Your task to perform on an android device: How much does the Samsung TV cost? Image 0: 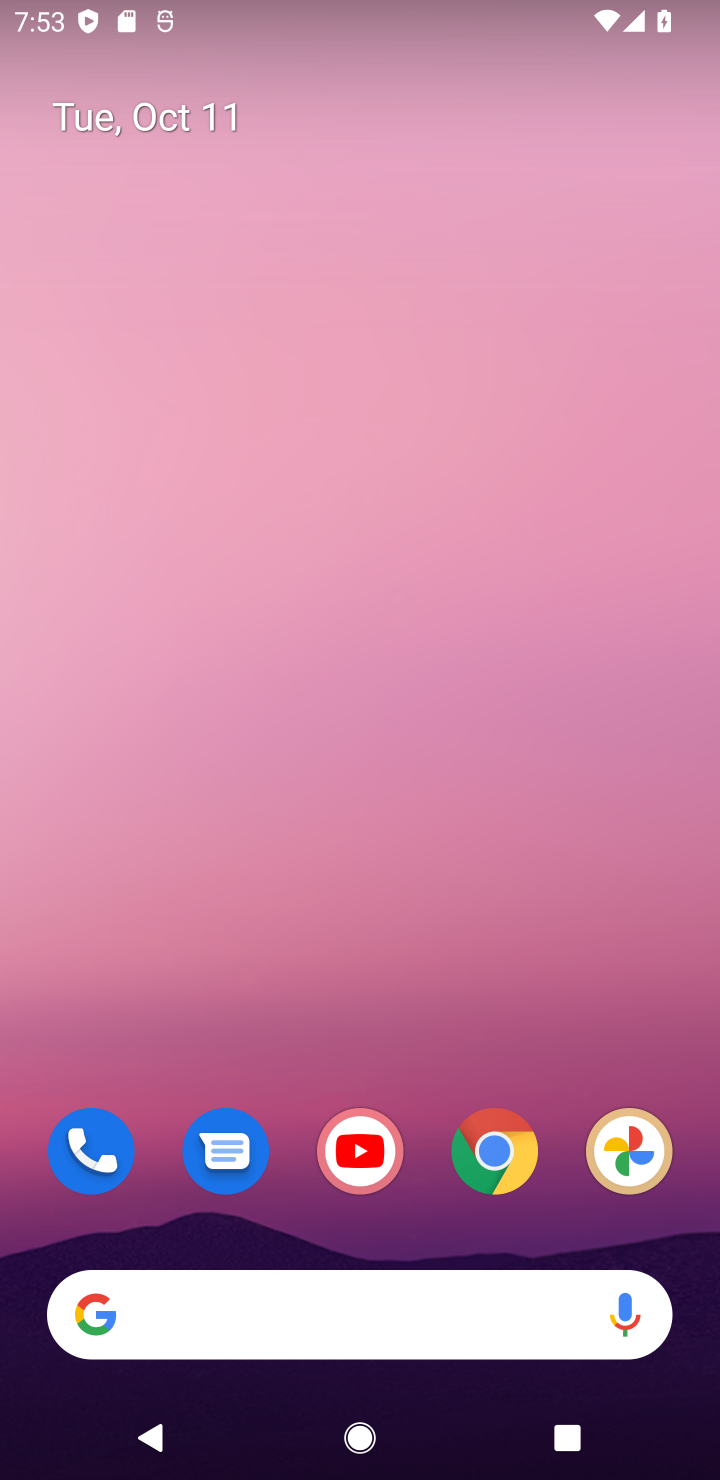
Step 0: click (231, 1329)
Your task to perform on an android device: How much does the Samsung TV cost? Image 1: 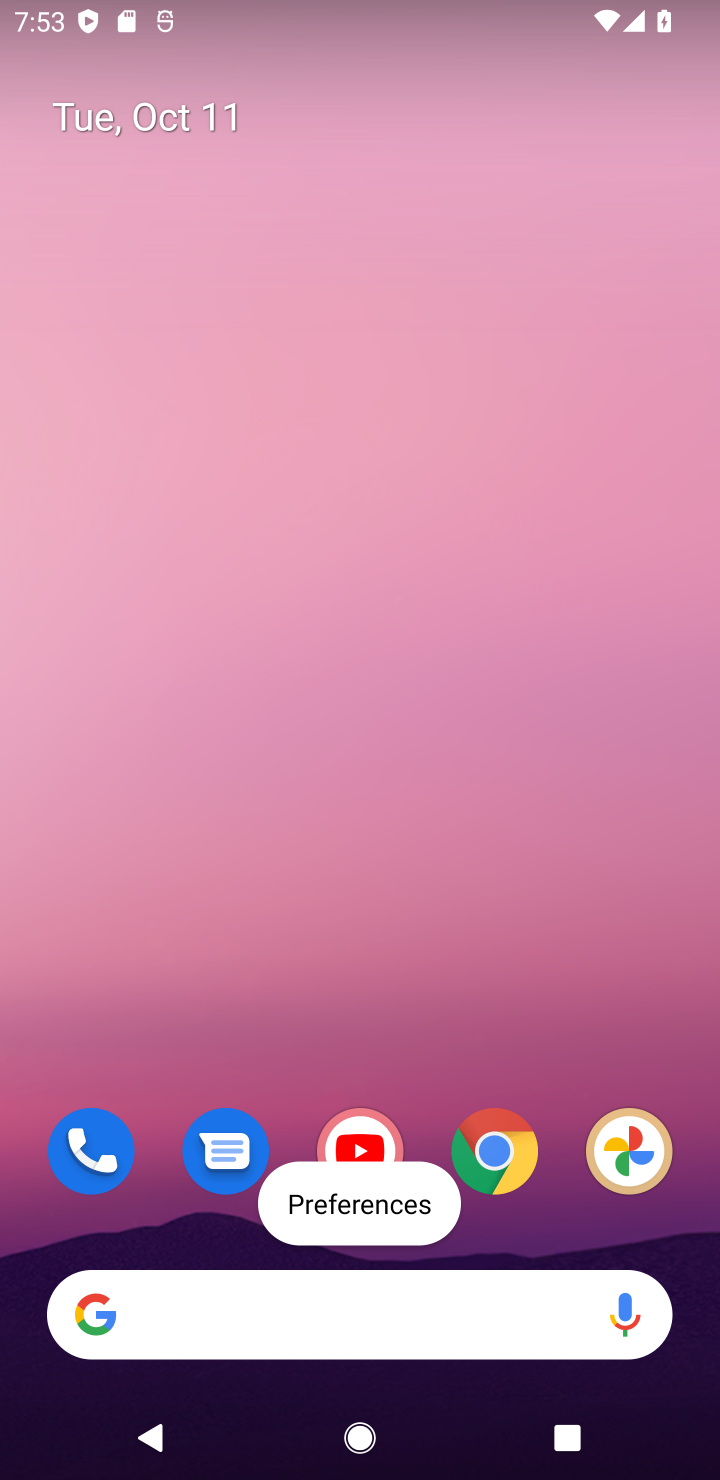
Step 1: click (269, 1306)
Your task to perform on an android device: How much does the Samsung TV cost? Image 2: 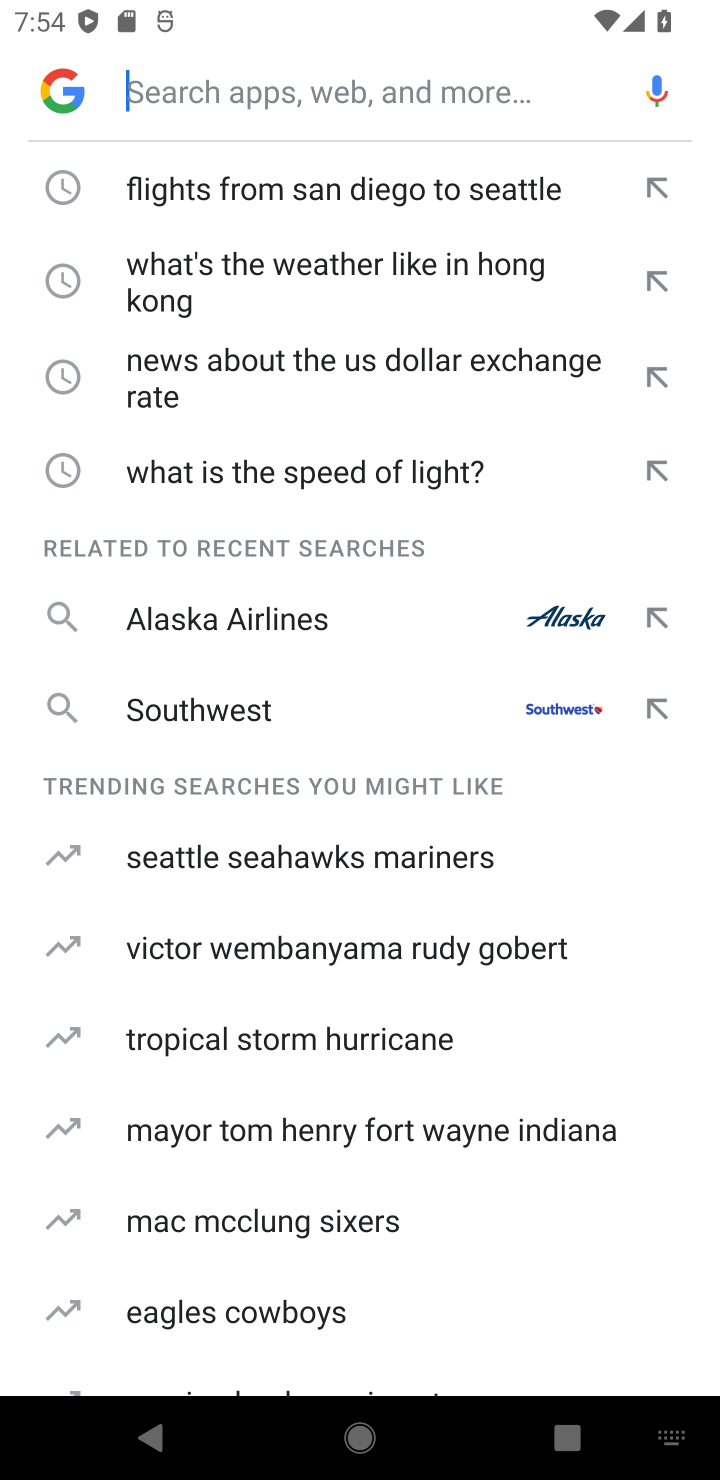
Step 2: type "Samsung TV cost"
Your task to perform on an android device: How much does the Samsung TV cost? Image 3: 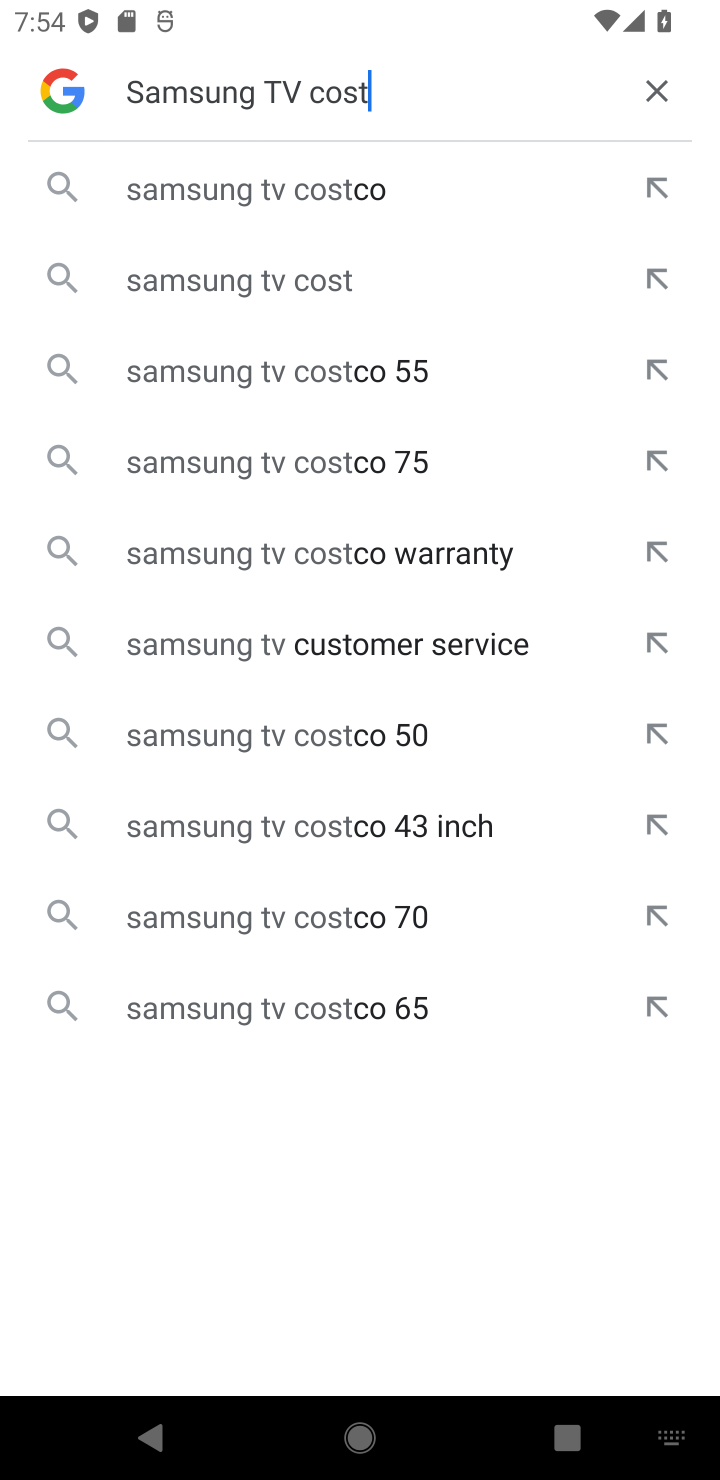
Step 3: press enter
Your task to perform on an android device: How much does the Samsung TV cost? Image 4: 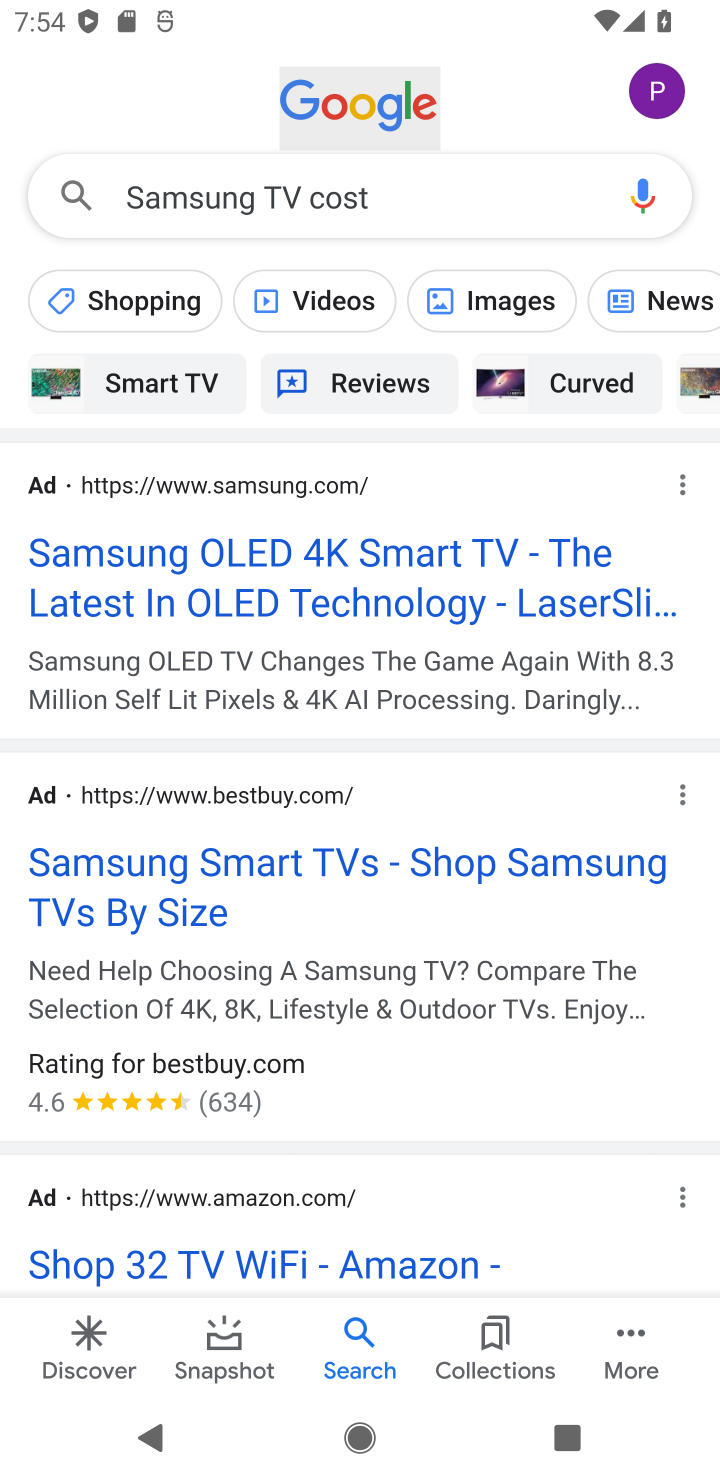
Step 4: drag from (483, 1187) to (528, 669)
Your task to perform on an android device: How much does the Samsung TV cost? Image 5: 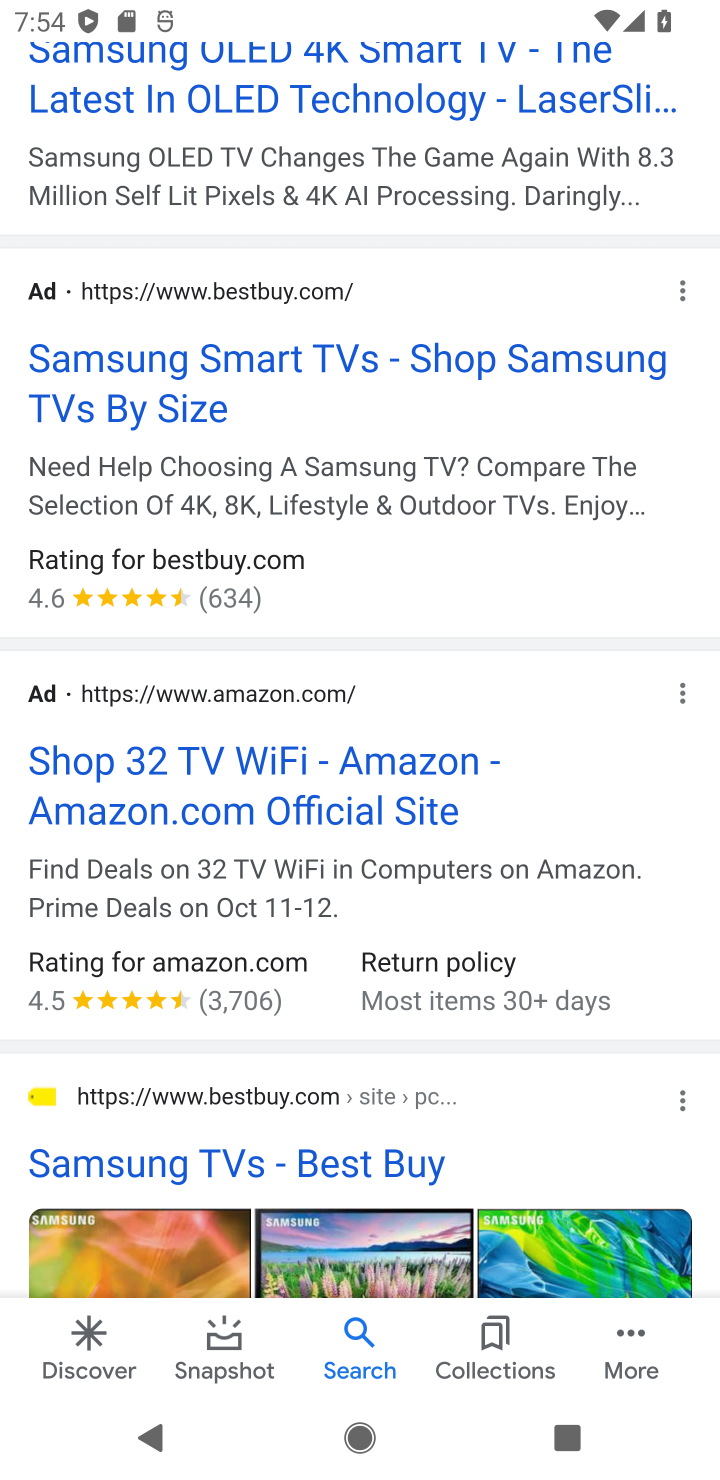
Step 5: click (186, 1148)
Your task to perform on an android device: How much does the Samsung TV cost? Image 6: 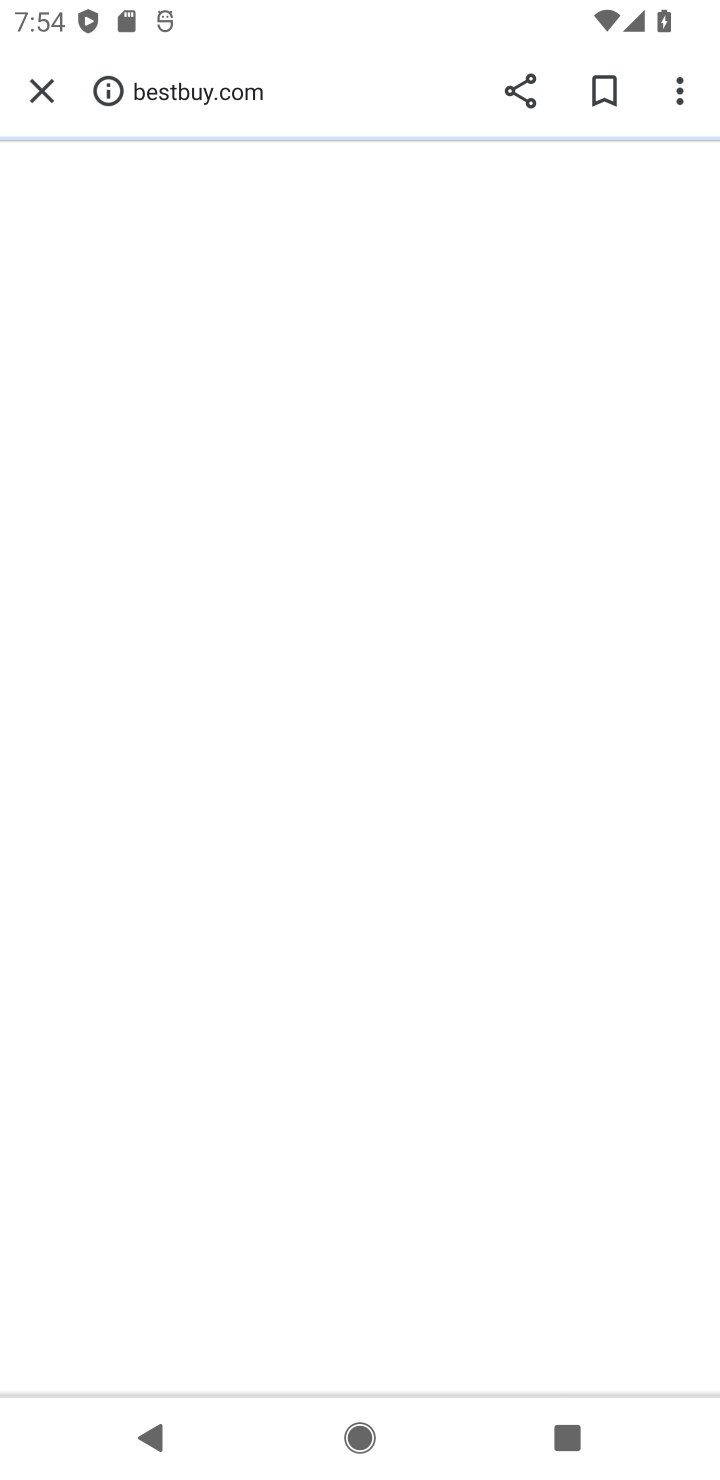
Step 6: click (186, 1148)
Your task to perform on an android device: How much does the Samsung TV cost? Image 7: 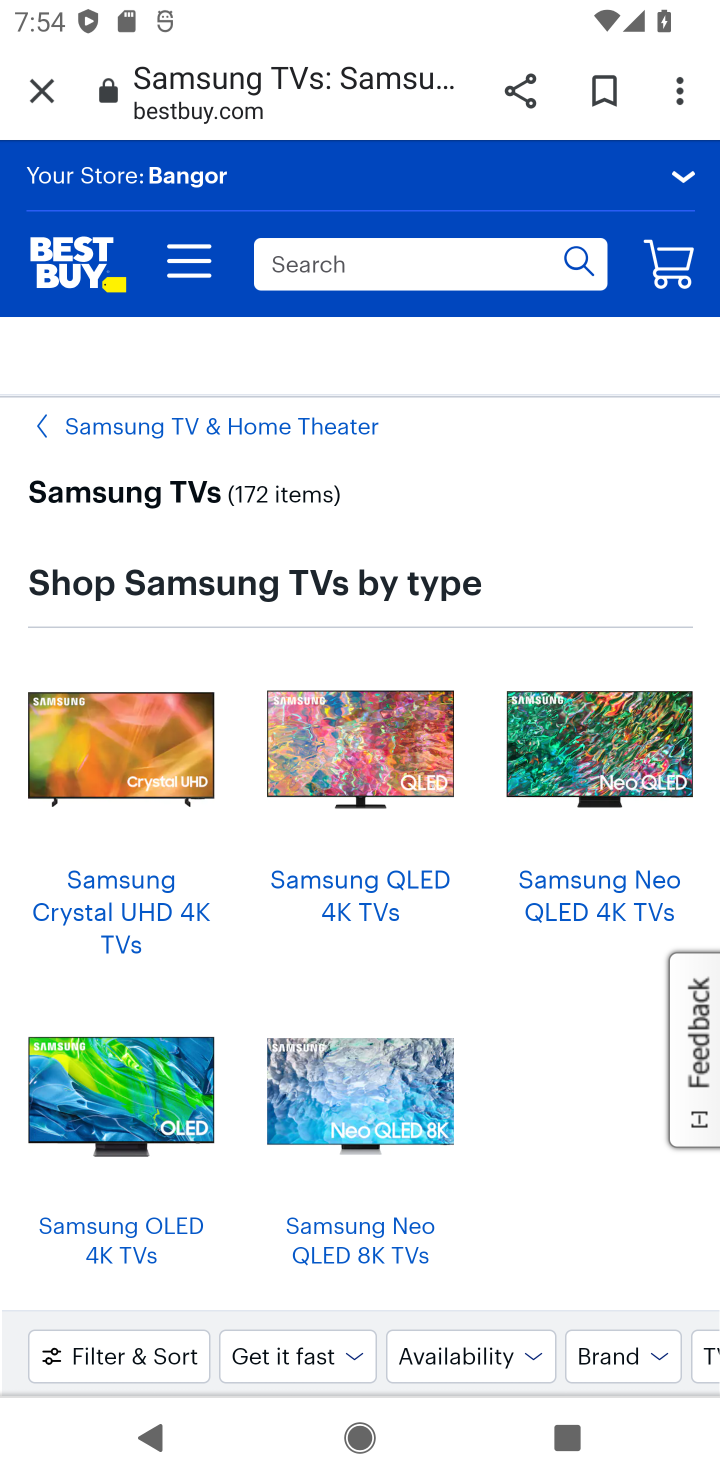
Step 7: task complete